Your task to perform on an android device: Is it going to rain today? Image 0: 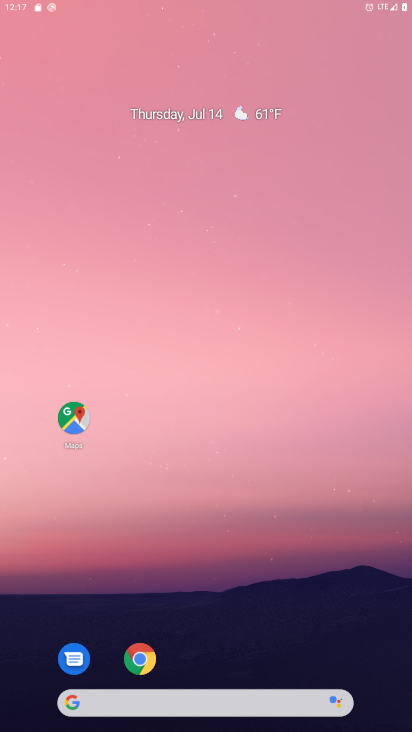
Step 0: press home button
Your task to perform on an android device: Is it going to rain today? Image 1: 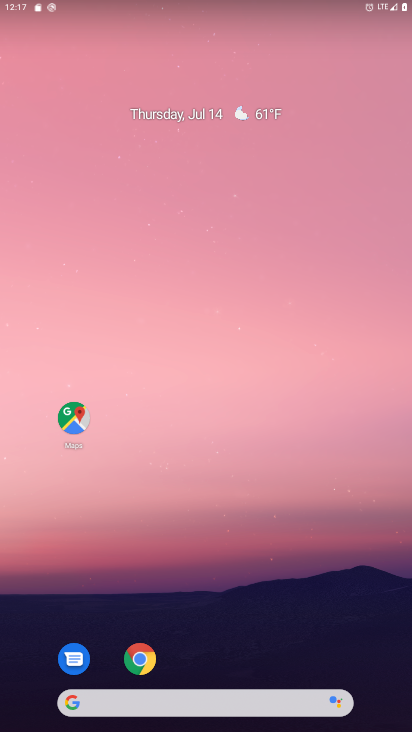
Step 1: click (157, 696)
Your task to perform on an android device: Is it going to rain today? Image 2: 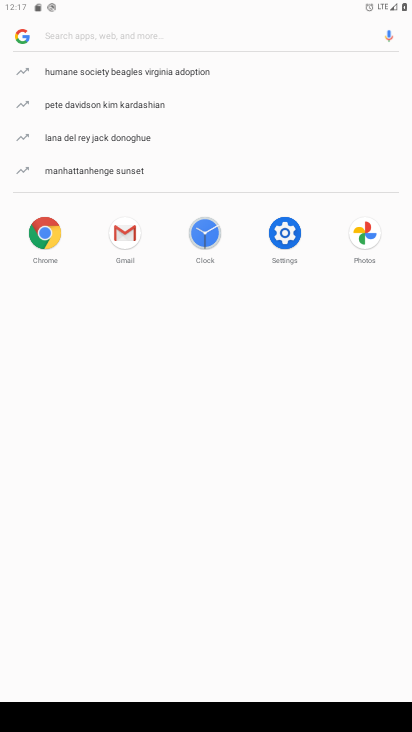
Step 2: type "weather"
Your task to perform on an android device: Is it going to rain today? Image 3: 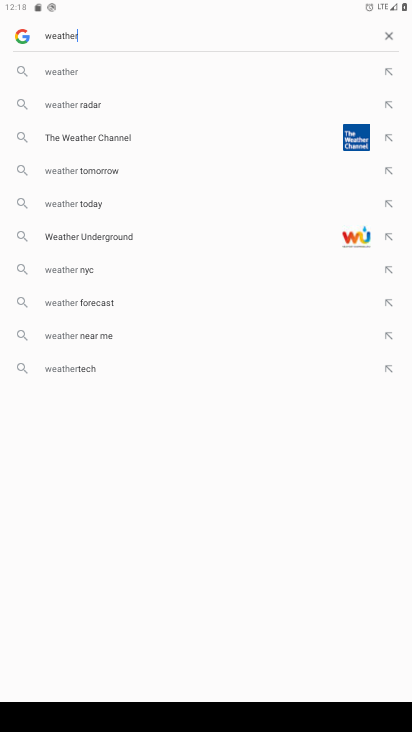
Step 3: click (80, 72)
Your task to perform on an android device: Is it going to rain today? Image 4: 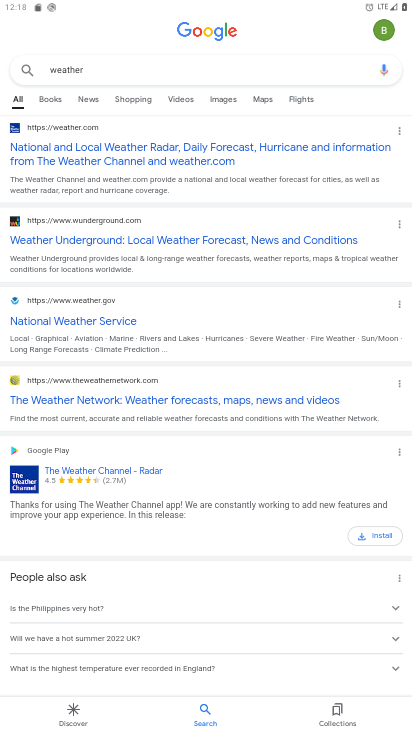
Step 4: click (176, 160)
Your task to perform on an android device: Is it going to rain today? Image 5: 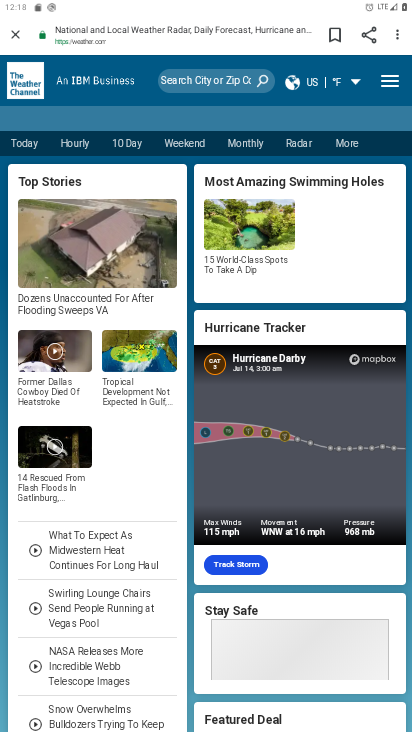
Step 5: click (13, 35)
Your task to perform on an android device: Is it going to rain today? Image 6: 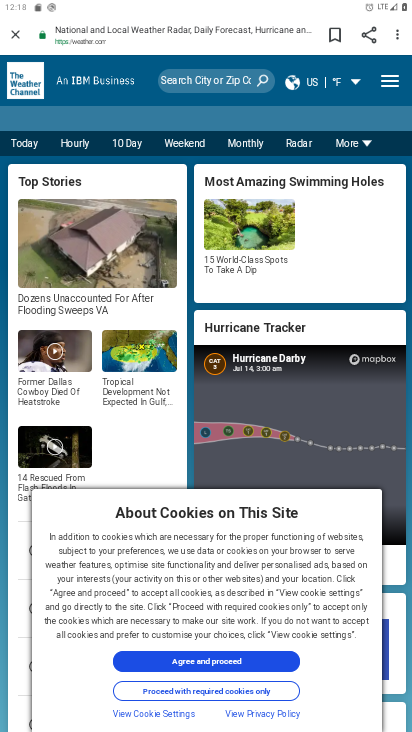
Step 6: click (17, 37)
Your task to perform on an android device: Is it going to rain today? Image 7: 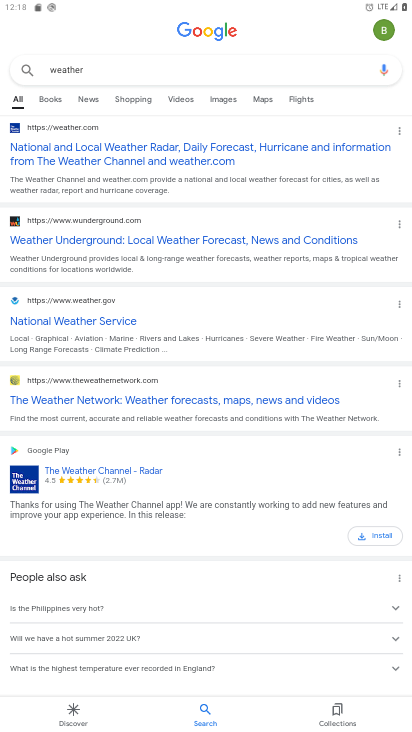
Step 7: drag from (194, 565) to (199, 69)
Your task to perform on an android device: Is it going to rain today? Image 8: 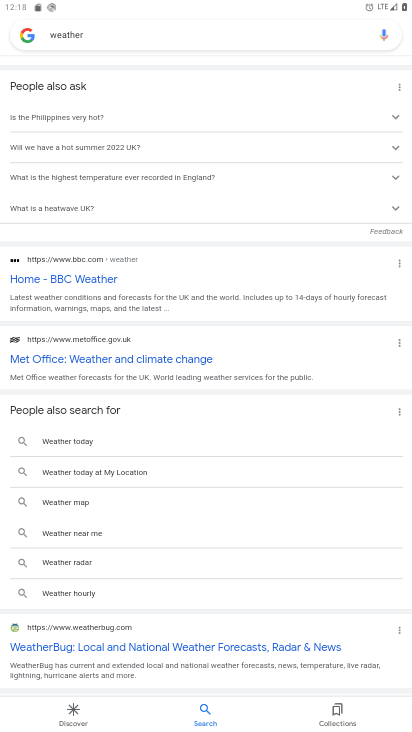
Step 8: click (79, 444)
Your task to perform on an android device: Is it going to rain today? Image 9: 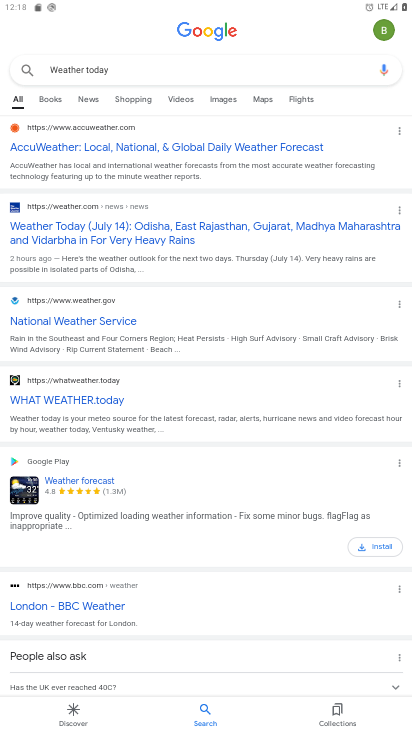
Step 9: click (92, 401)
Your task to perform on an android device: Is it going to rain today? Image 10: 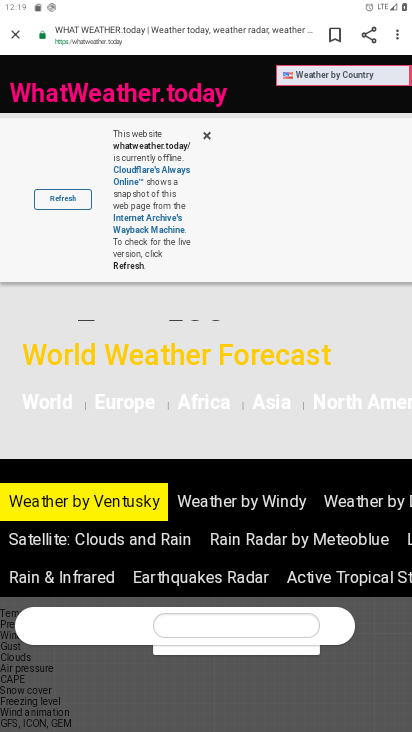
Step 10: click (12, 32)
Your task to perform on an android device: Is it going to rain today? Image 11: 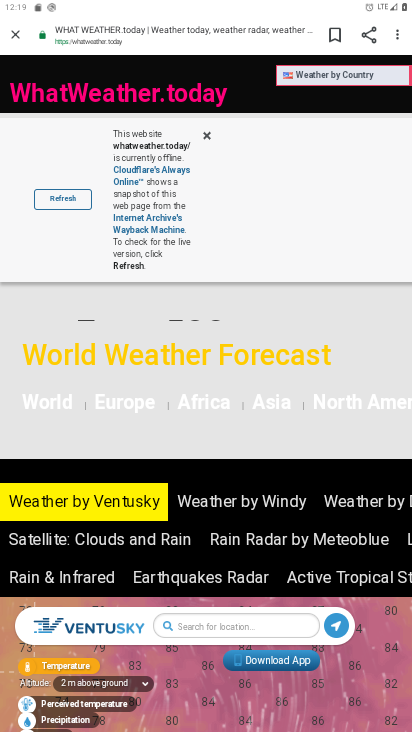
Step 11: task complete